Your task to perform on an android device: move an email to a new category in the gmail app Image 0: 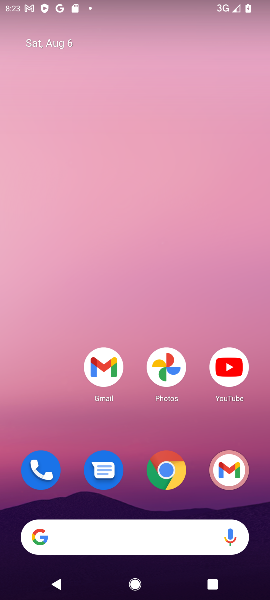
Step 0: drag from (150, 458) to (148, 203)
Your task to perform on an android device: move an email to a new category in the gmail app Image 1: 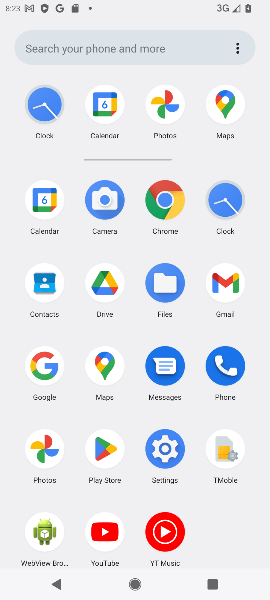
Step 1: click (224, 290)
Your task to perform on an android device: move an email to a new category in the gmail app Image 2: 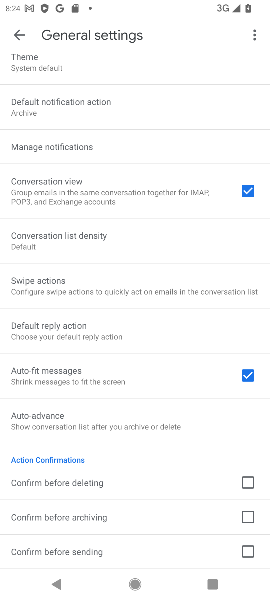
Step 2: click (20, 29)
Your task to perform on an android device: move an email to a new category in the gmail app Image 3: 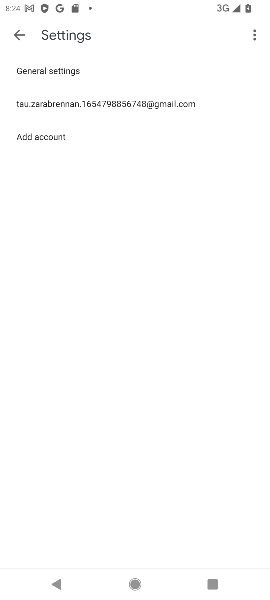
Step 3: click (9, 27)
Your task to perform on an android device: move an email to a new category in the gmail app Image 4: 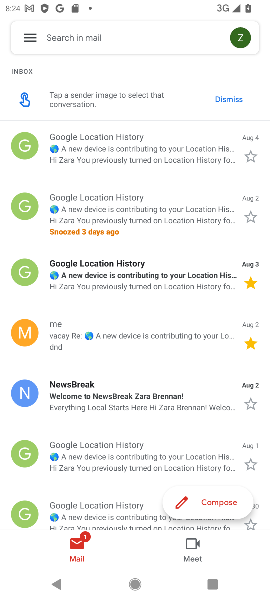
Step 4: click (134, 213)
Your task to perform on an android device: move an email to a new category in the gmail app Image 5: 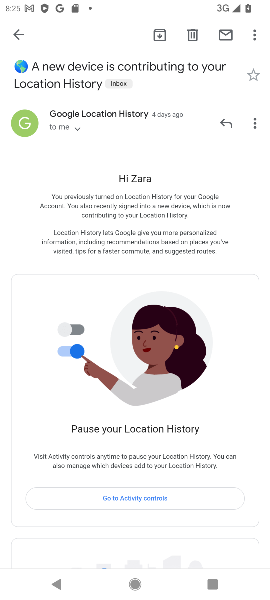
Step 5: click (255, 39)
Your task to perform on an android device: move an email to a new category in the gmail app Image 6: 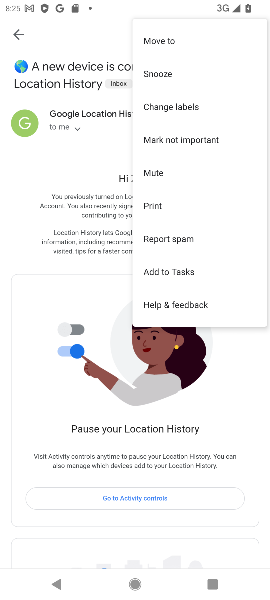
Step 6: click (183, 109)
Your task to perform on an android device: move an email to a new category in the gmail app Image 7: 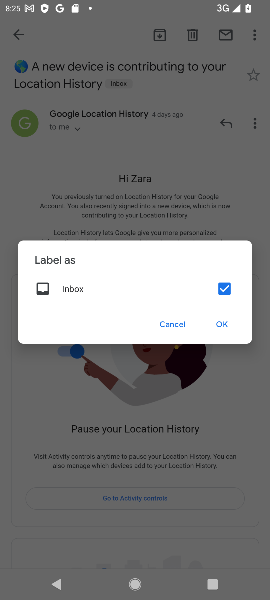
Step 7: click (182, 106)
Your task to perform on an android device: move an email to a new category in the gmail app Image 8: 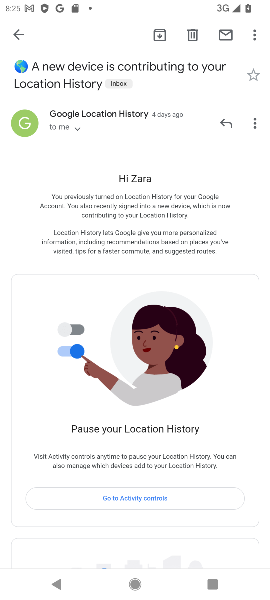
Step 8: task complete